Your task to perform on an android device: Go to settings Image 0: 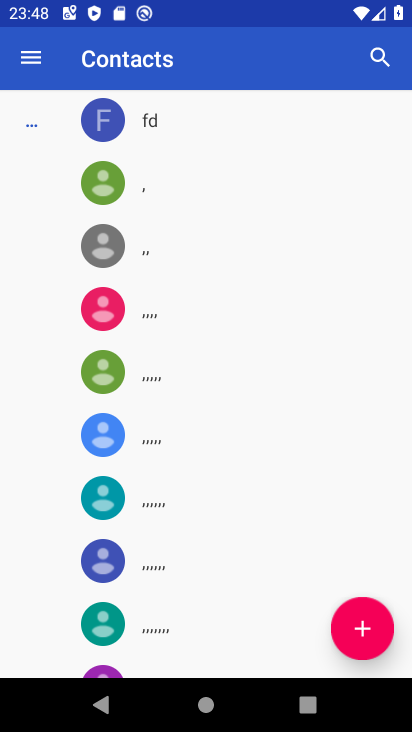
Step 0: drag from (213, 525) to (273, 75)
Your task to perform on an android device: Go to settings Image 1: 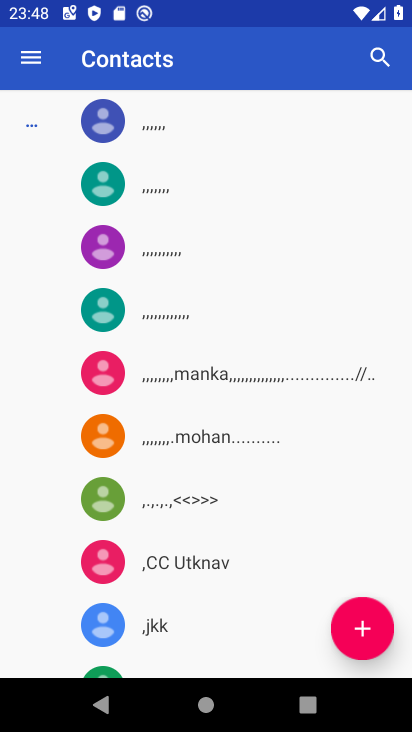
Step 1: press home button
Your task to perform on an android device: Go to settings Image 2: 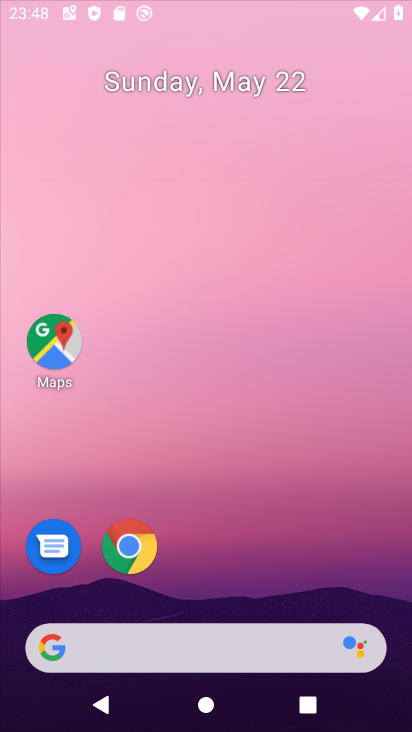
Step 2: drag from (172, 592) to (229, 0)
Your task to perform on an android device: Go to settings Image 3: 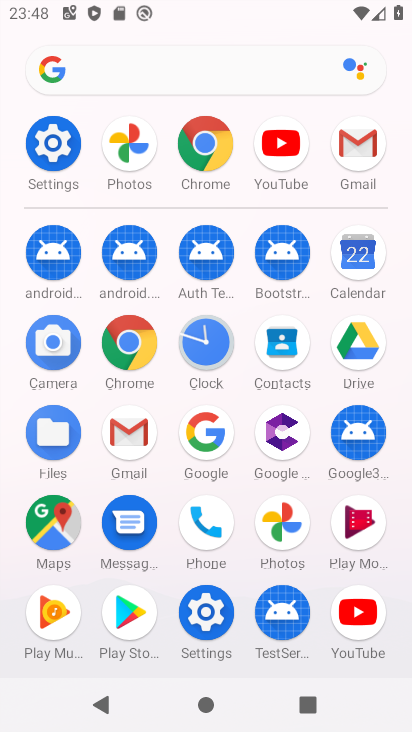
Step 3: click (56, 143)
Your task to perform on an android device: Go to settings Image 4: 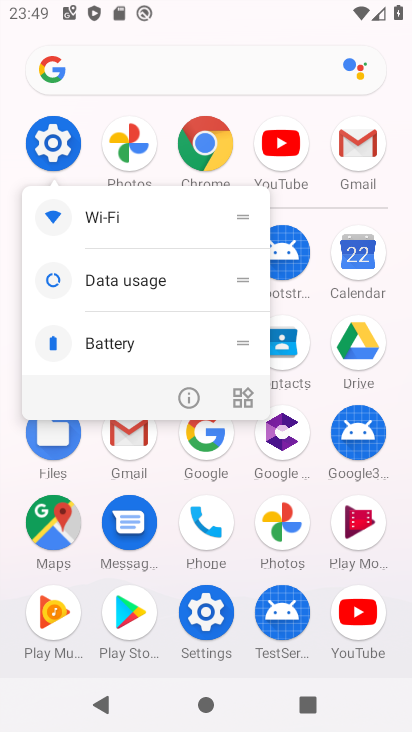
Step 4: click (184, 404)
Your task to perform on an android device: Go to settings Image 5: 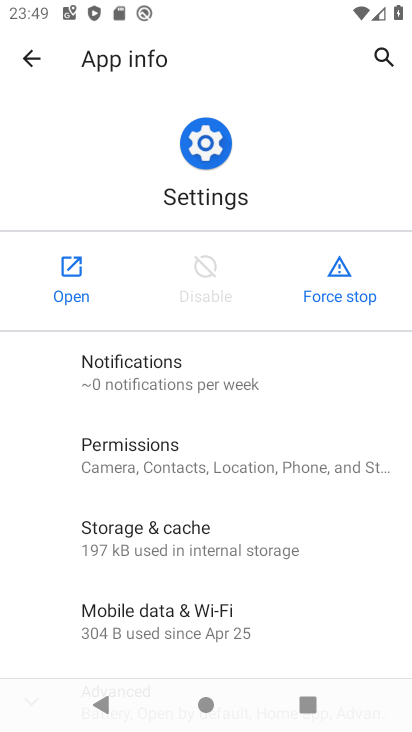
Step 5: click (77, 261)
Your task to perform on an android device: Go to settings Image 6: 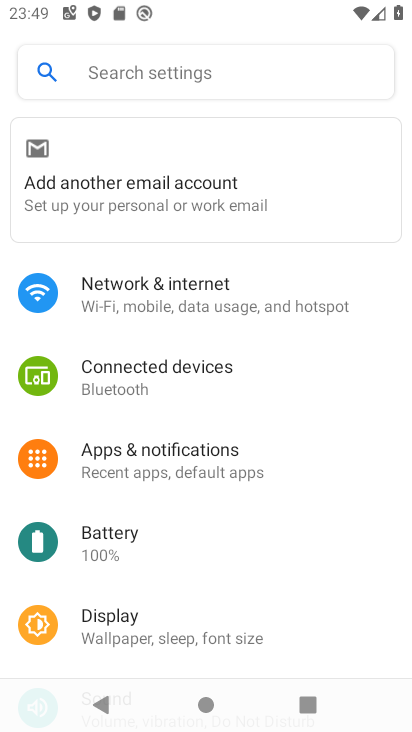
Step 6: task complete